Your task to perform on an android device: Open ESPN.com Image 0: 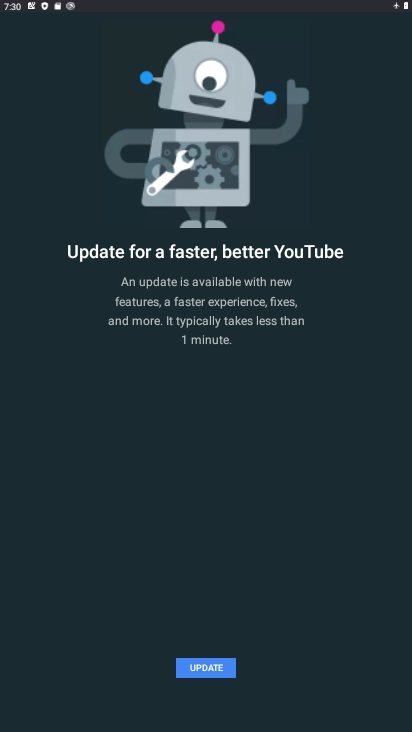
Step 0: press home button
Your task to perform on an android device: Open ESPN.com Image 1: 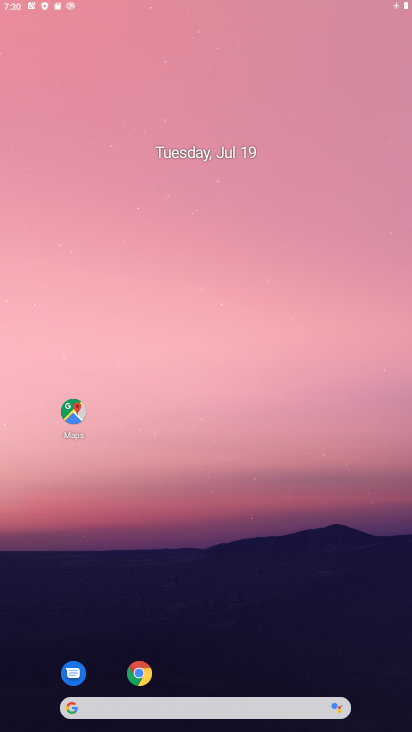
Step 1: drag from (375, 690) to (245, 40)
Your task to perform on an android device: Open ESPN.com Image 2: 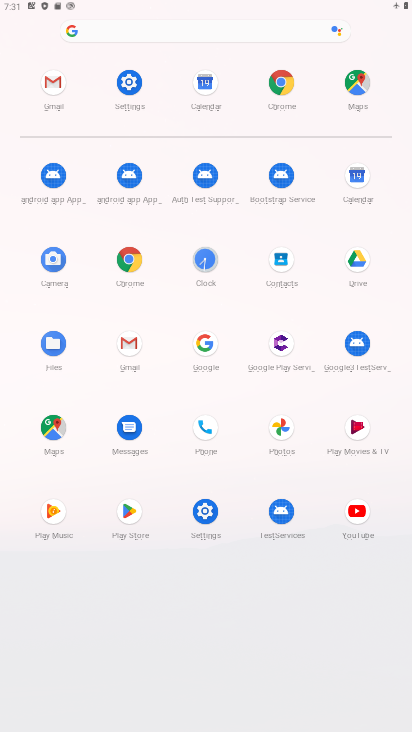
Step 2: click (193, 347)
Your task to perform on an android device: Open ESPN.com Image 3: 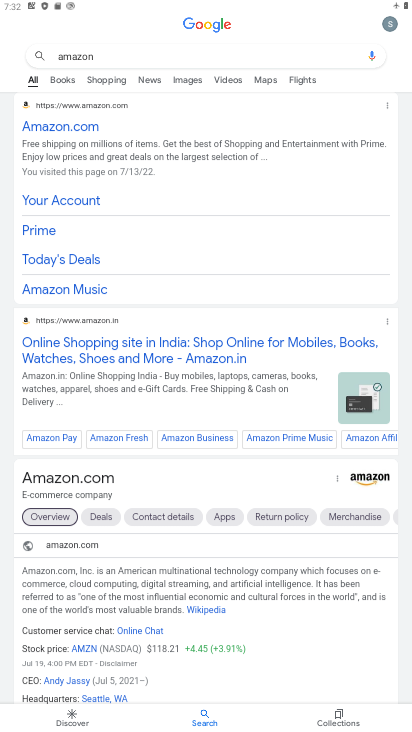
Step 3: press back button
Your task to perform on an android device: Open ESPN.com Image 4: 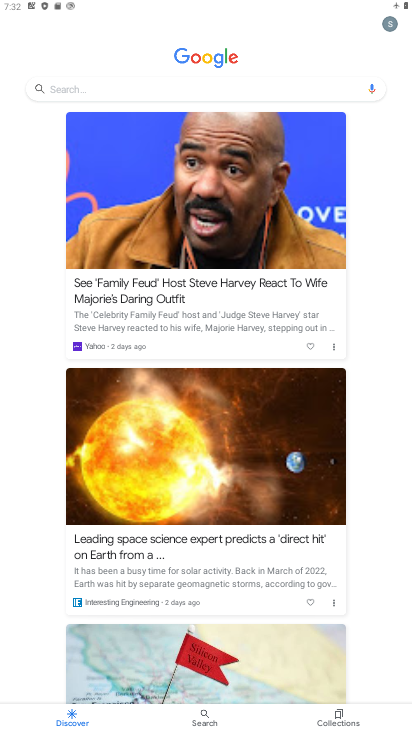
Step 4: click (87, 90)
Your task to perform on an android device: Open ESPN.com Image 5: 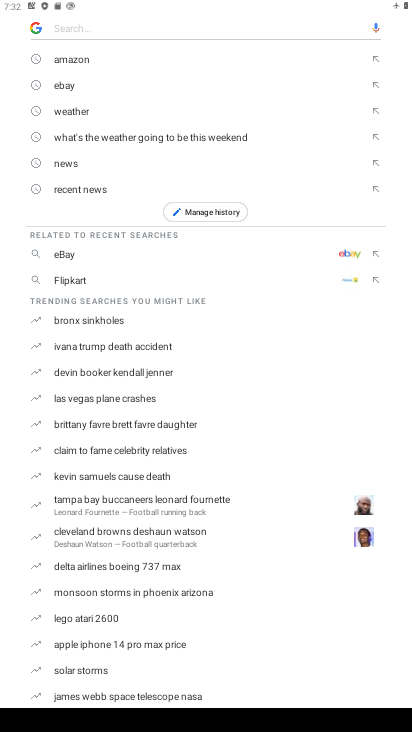
Step 5: type "ESPN.com"
Your task to perform on an android device: Open ESPN.com Image 6: 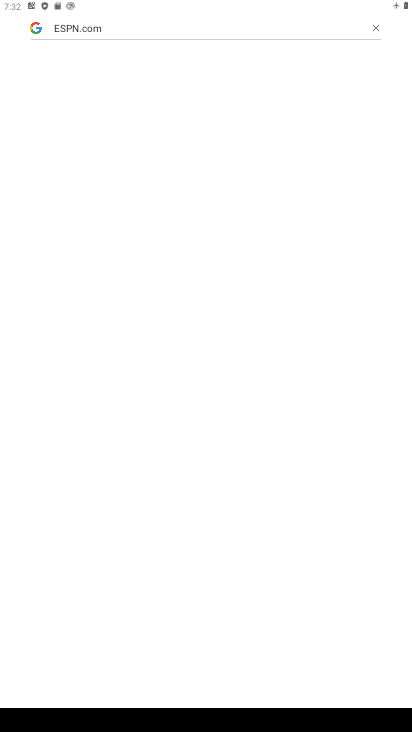
Step 6: task complete